Your task to perform on an android device: turn off smart reply in the gmail app Image 0: 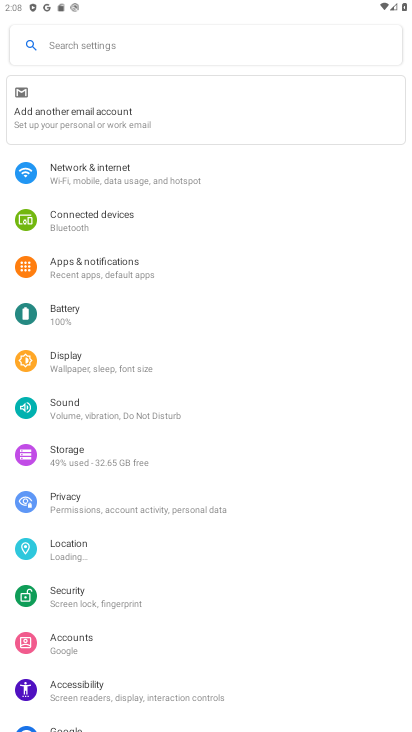
Step 0: press home button
Your task to perform on an android device: turn off smart reply in the gmail app Image 1: 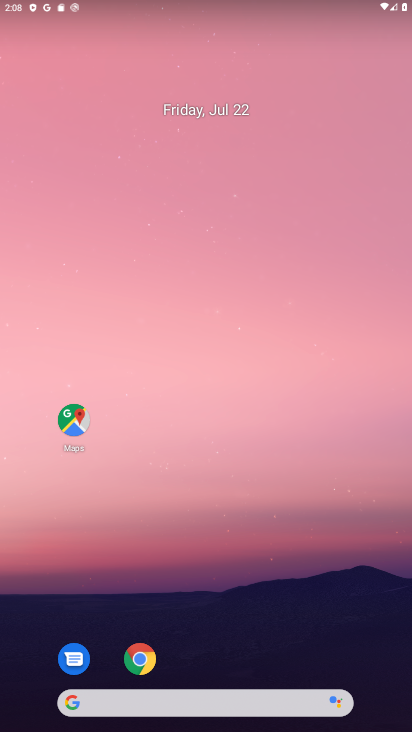
Step 1: drag from (202, 530) to (185, 170)
Your task to perform on an android device: turn off smart reply in the gmail app Image 2: 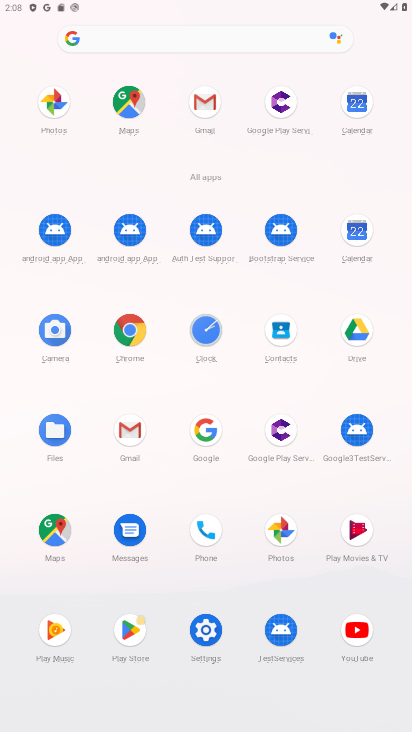
Step 2: click (205, 126)
Your task to perform on an android device: turn off smart reply in the gmail app Image 3: 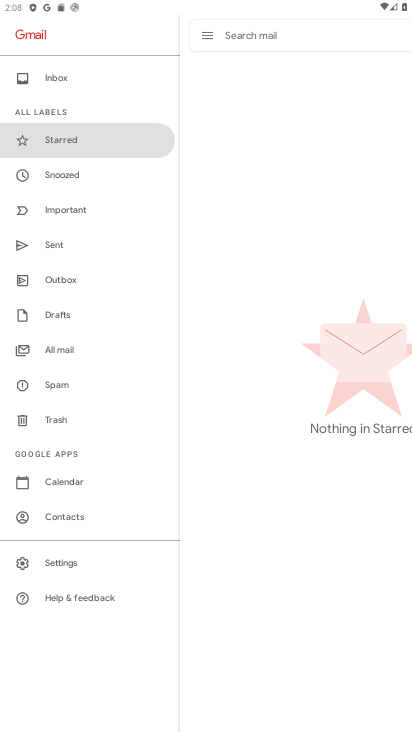
Step 3: click (63, 561)
Your task to perform on an android device: turn off smart reply in the gmail app Image 4: 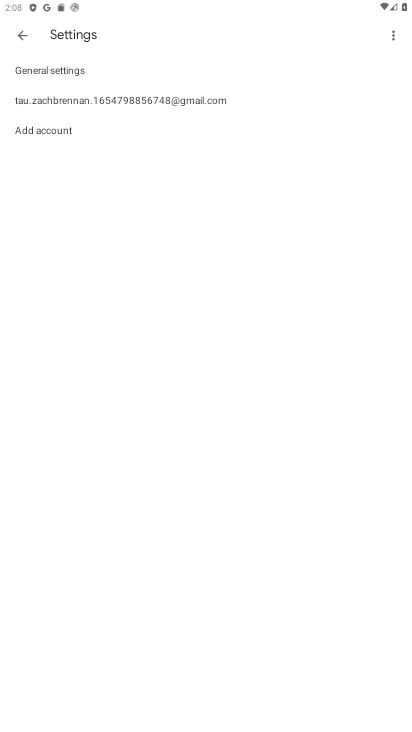
Step 4: click (142, 96)
Your task to perform on an android device: turn off smart reply in the gmail app Image 5: 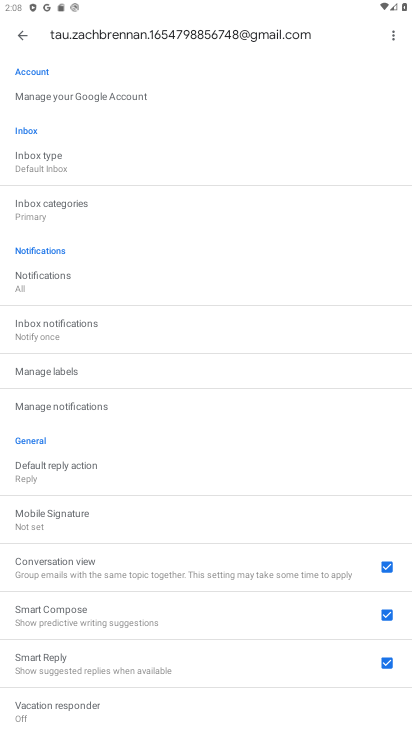
Step 5: click (388, 669)
Your task to perform on an android device: turn off smart reply in the gmail app Image 6: 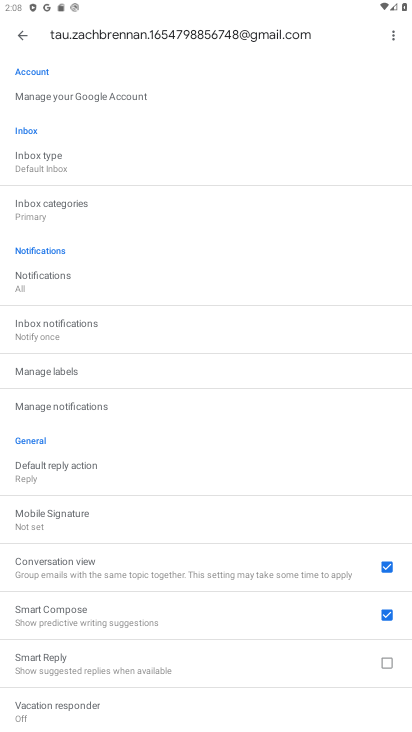
Step 6: task complete